Your task to perform on an android device: all mails in gmail Image 0: 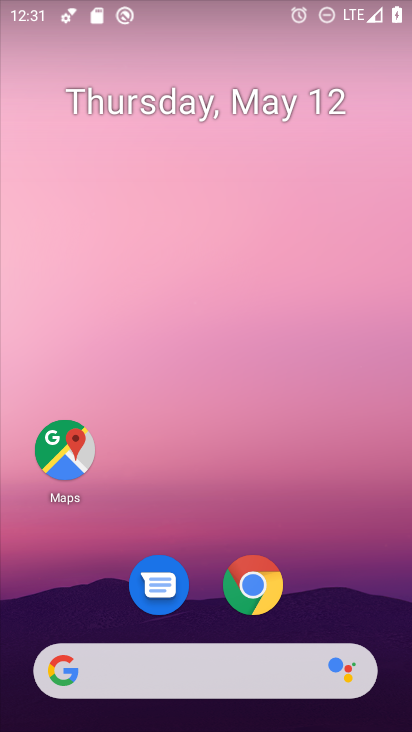
Step 0: drag from (332, 533) to (350, 0)
Your task to perform on an android device: all mails in gmail Image 1: 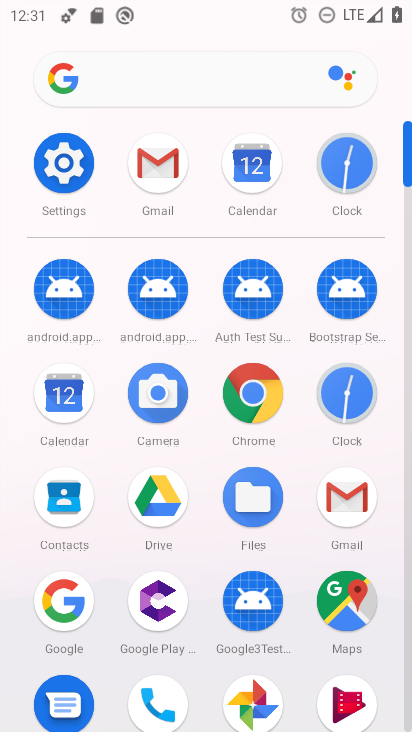
Step 1: click (159, 165)
Your task to perform on an android device: all mails in gmail Image 2: 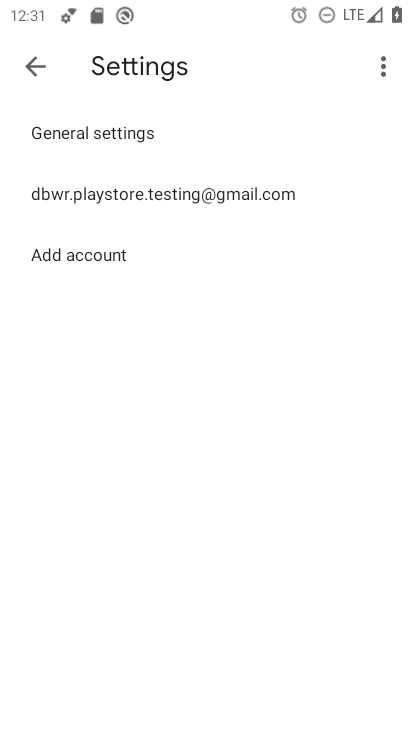
Step 2: click (41, 64)
Your task to perform on an android device: all mails in gmail Image 3: 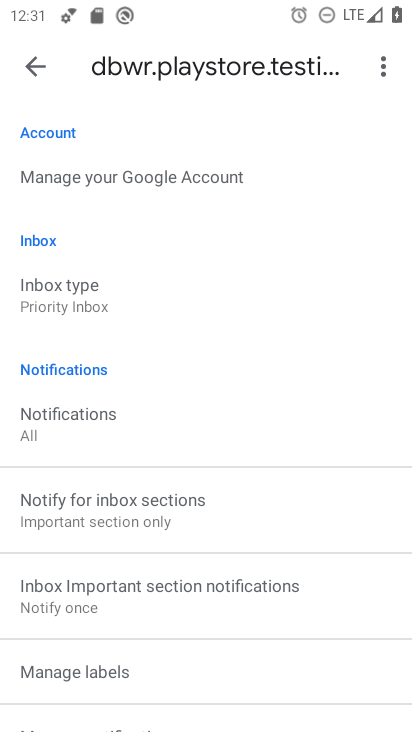
Step 3: click (38, 64)
Your task to perform on an android device: all mails in gmail Image 4: 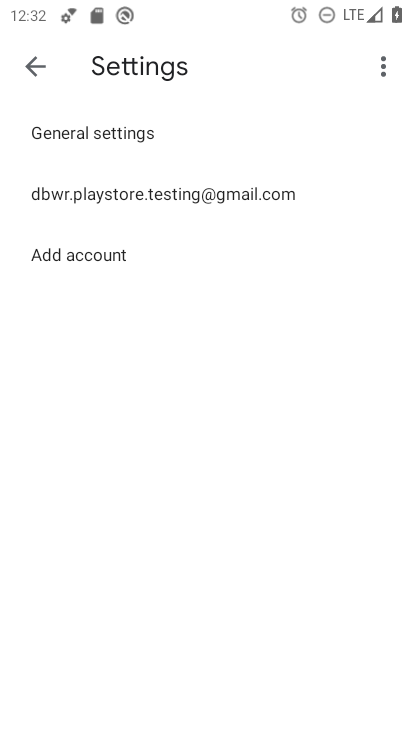
Step 4: click (38, 64)
Your task to perform on an android device: all mails in gmail Image 5: 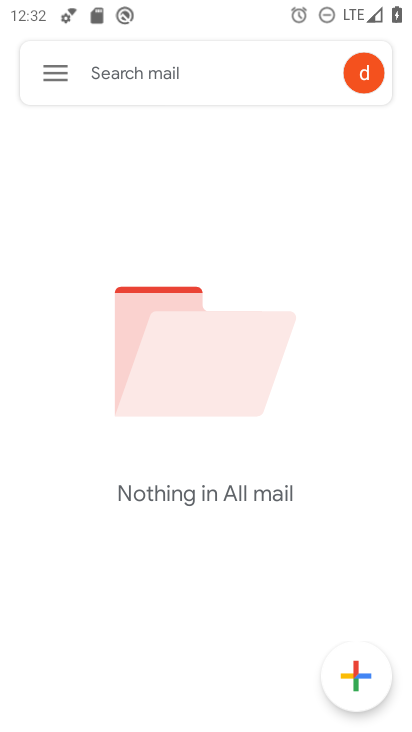
Step 5: task complete